Your task to perform on an android device: Go to accessibility settings Image 0: 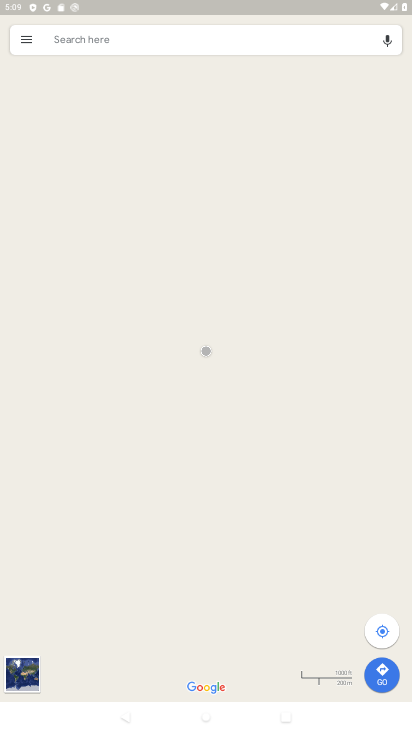
Step 0: press home button
Your task to perform on an android device: Go to accessibility settings Image 1: 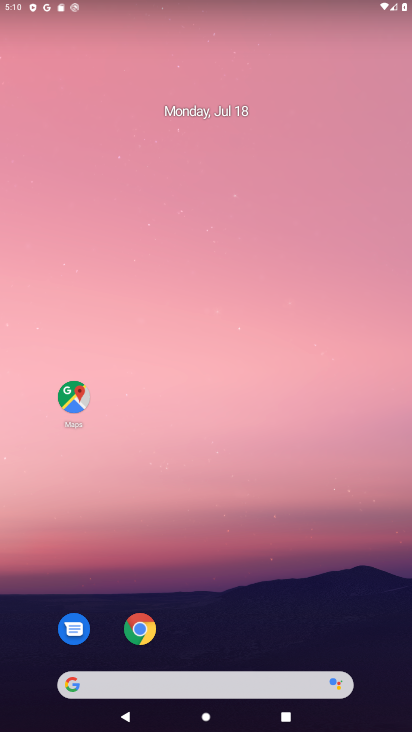
Step 1: drag from (310, 584) to (250, 0)
Your task to perform on an android device: Go to accessibility settings Image 2: 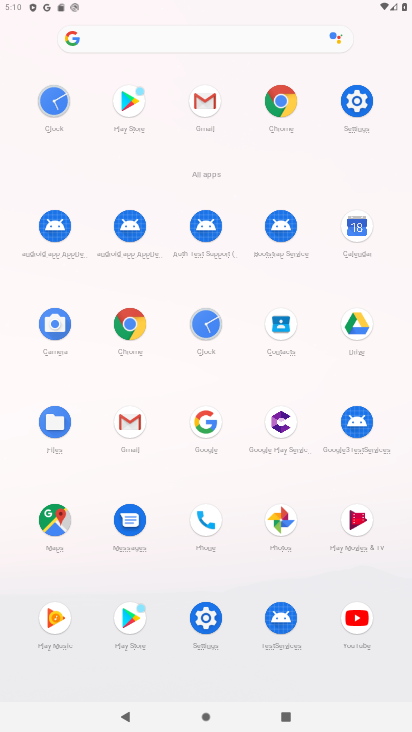
Step 2: click (355, 99)
Your task to perform on an android device: Go to accessibility settings Image 3: 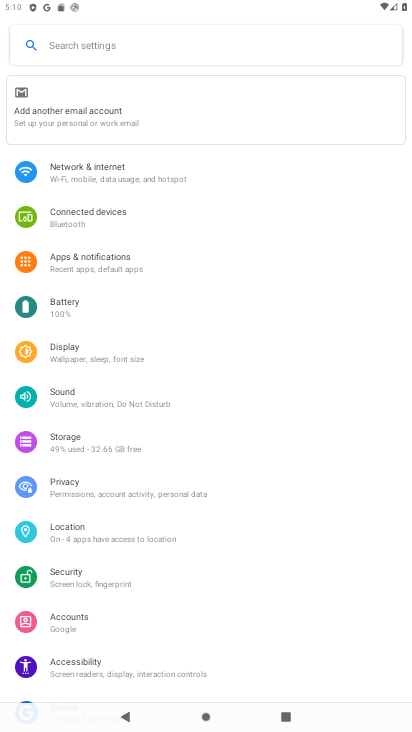
Step 3: click (118, 674)
Your task to perform on an android device: Go to accessibility settings Image 4: 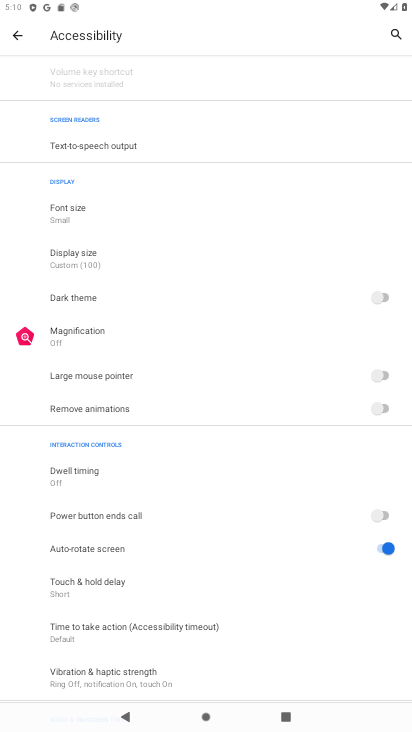
Step 4: task complete